Your task to perform on an android device: turn on improve location accuracy Image 0: 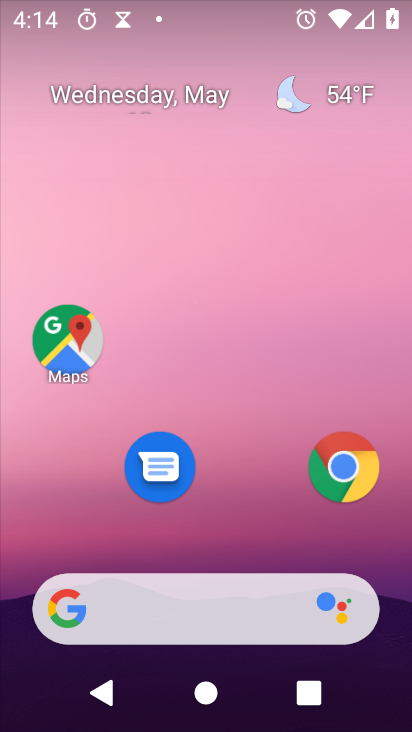
Step 0: drag from (281, 540) to (164, 120)
Your task to perform on an android device: turn on improve location accuracy Image 1: 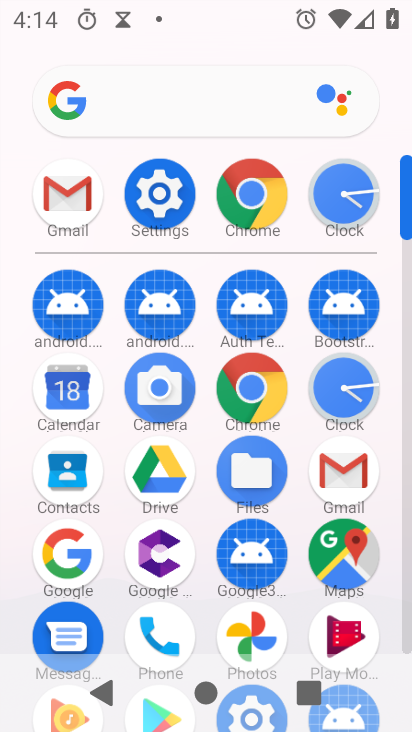
Step 1: click (159, 175)
Your task to perform on an android device: turn on improve location accuracy Image 2: 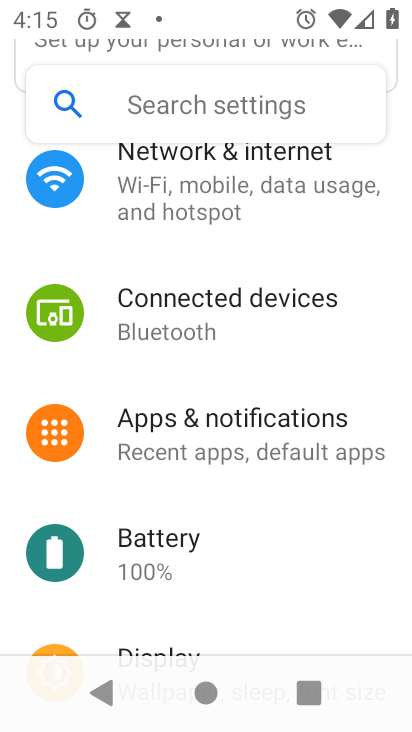
Step 2: drag from (264, 623) to (179, 233)
Your task to perform on an android device: turn on improve location accuracy Image 3: 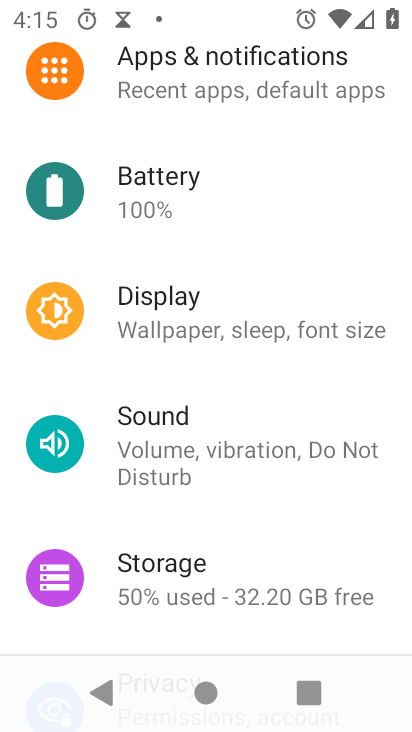
Step 3: drag from (175, 547) to (74, 47)
Your task to perform on an android device: turn on improve location accuracy Image 4: 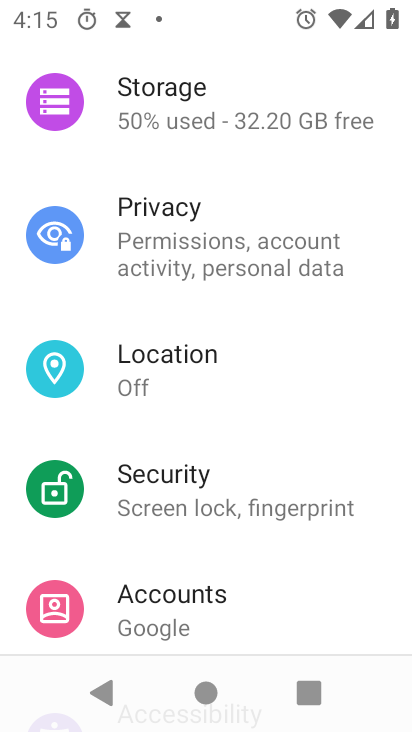
Step 4: click (211, 359)
Your task to perform on an android device: turn on improve location accuracy Image 5: 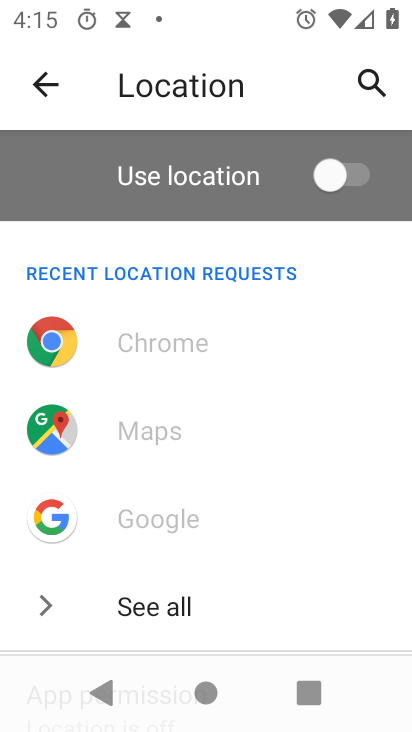
Step 5: drag from (291, 549) to (276, 102)
Your task to perform on an android device: turn on improve location accuracy Image 6: 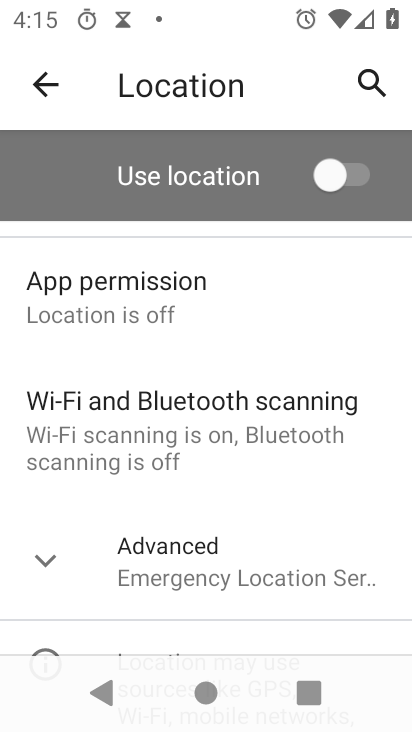
Step 6: click (313, 569)
Your task to perform on an android device: turn on improve location accuracy Image 7: 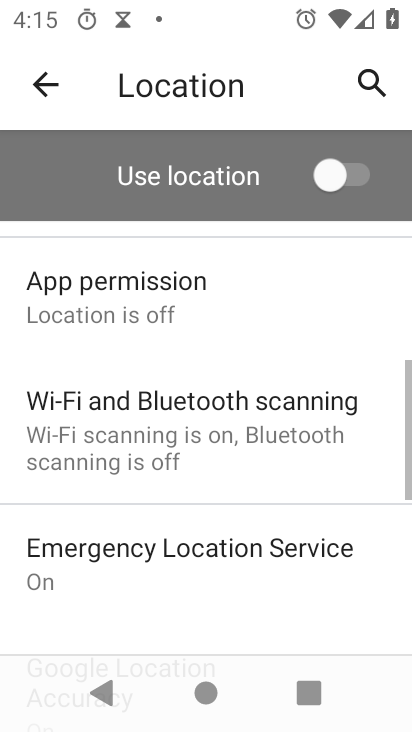
Step 7: drag from (313, 569) to (245, 135)
Your task to perform on an android device: turn on improve location accuracy Image 8: 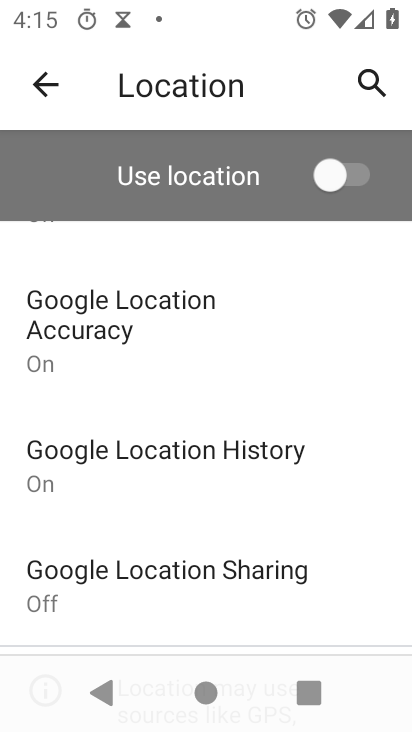
Step 8: click (212, 368)
Your task to perform on an android device: turn on improve location accuracy Image 9: 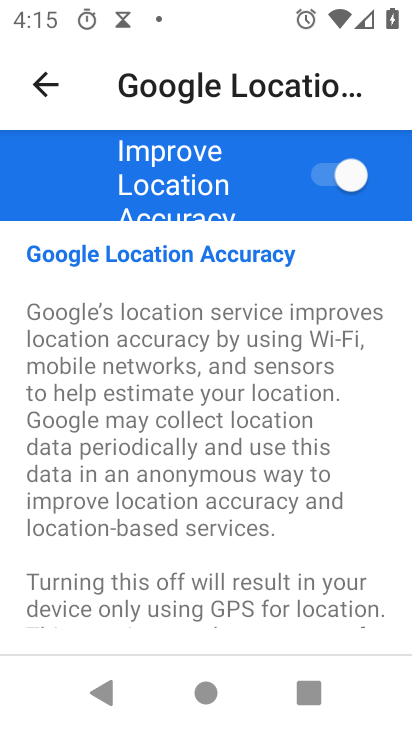
Step 9: task complete